Your task to perform on an android device: open app "DoorDash - Food Delivery" (install if not already installed), go to login, and select forgot password Image 0: 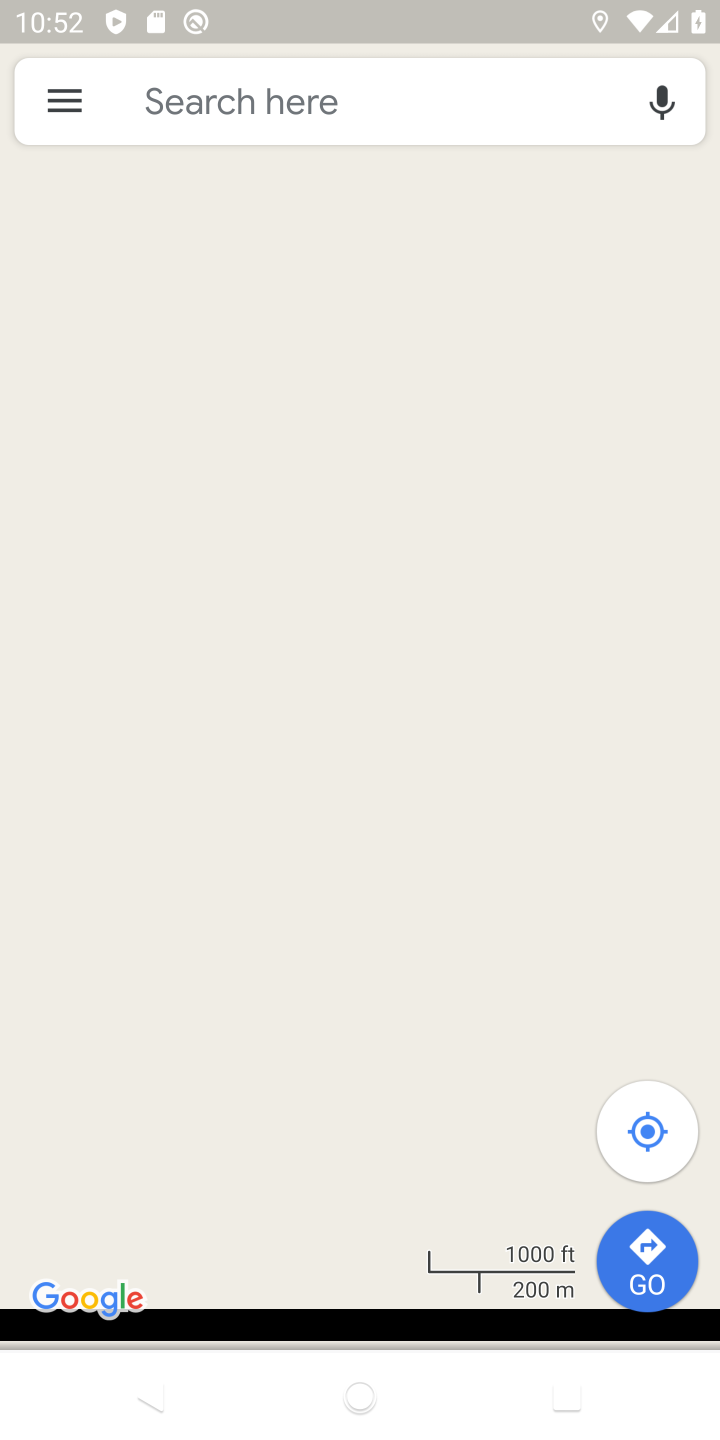
Step 0: press home button
Your task to perform on an android device: open app "DoorDash - Food Delivery" (install if not already installed), go to login, and select forgot password Image 1: 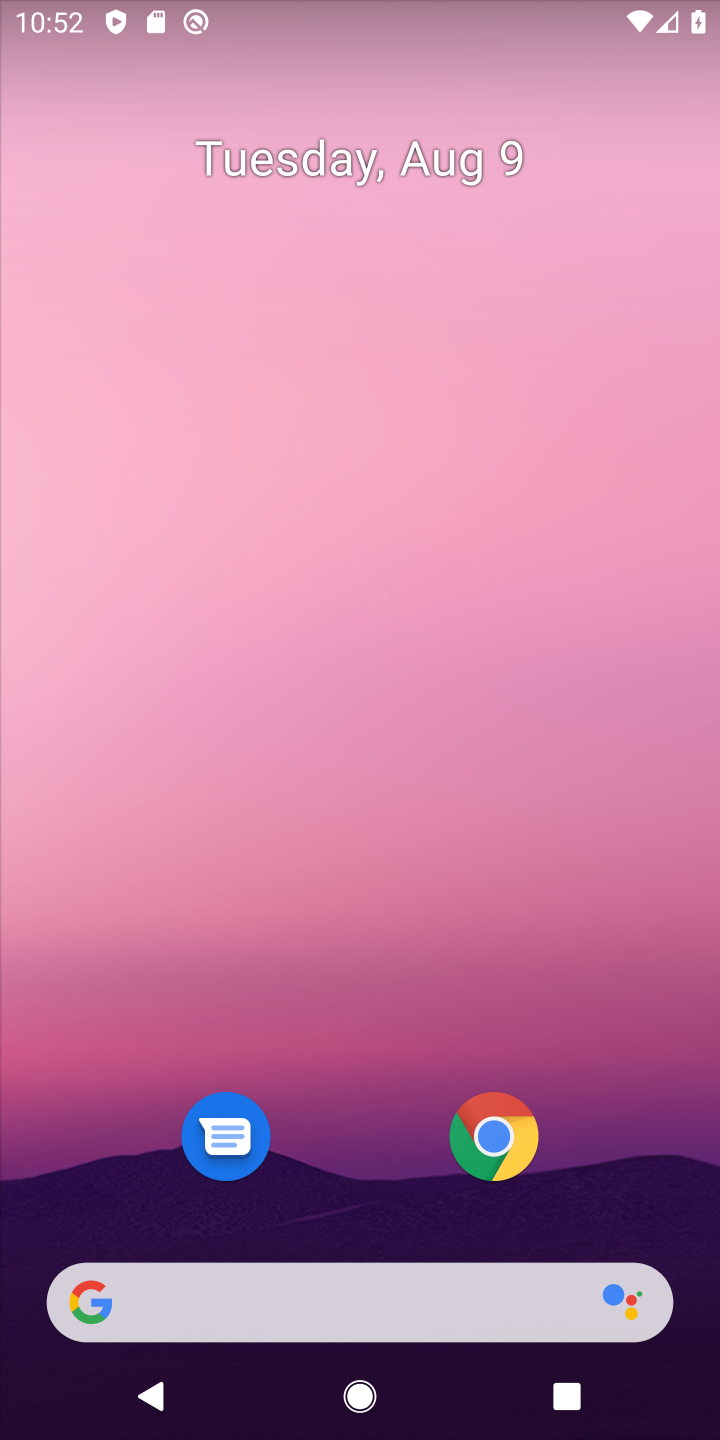
Step 1: drag from (387, 963) to (462, 389)
Your task to perform on an android device: open app "DoorDash - Food Delivery" (install if not already installed), go to login, and select forgot password Image 2: 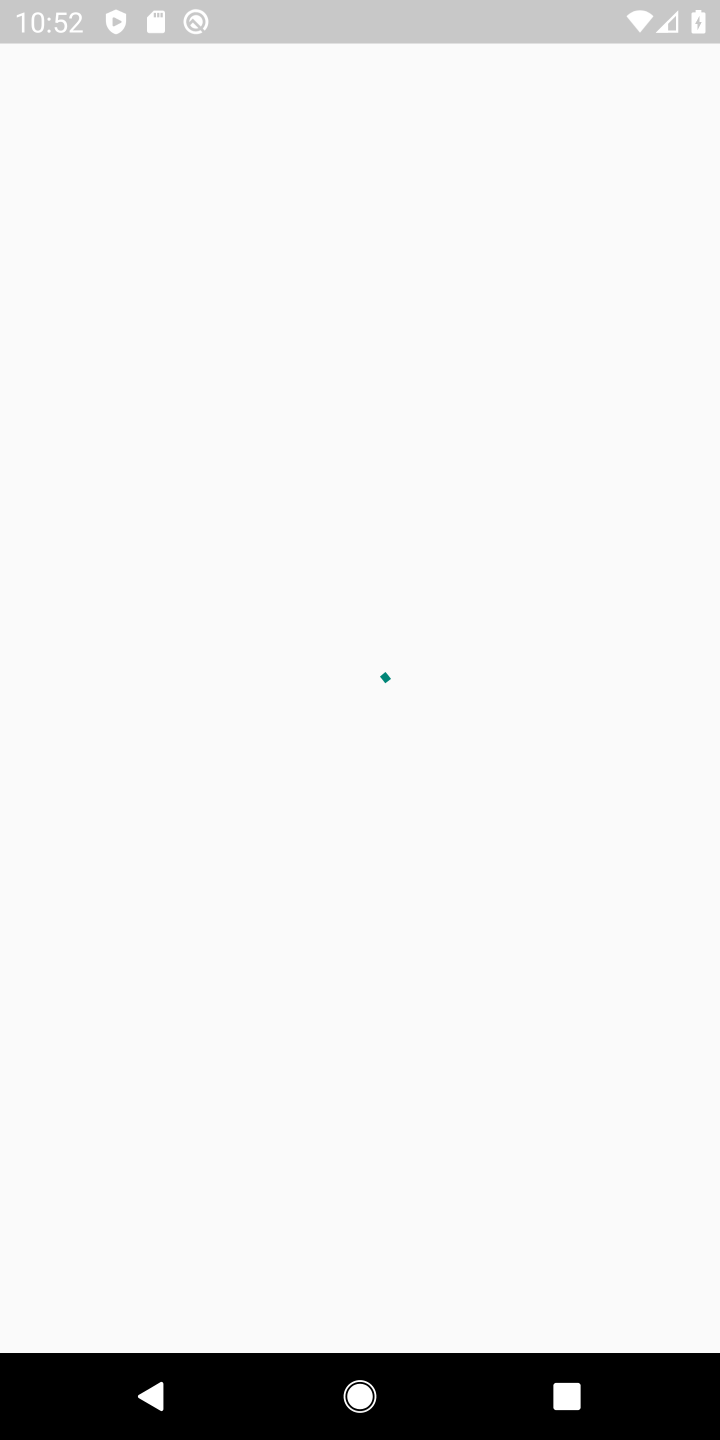
Step 2: press home button
Your task to perform on an android device: open app "DoorDash - Food Delivery" (install if not already installed), go to login, and select forgot password Image 3: 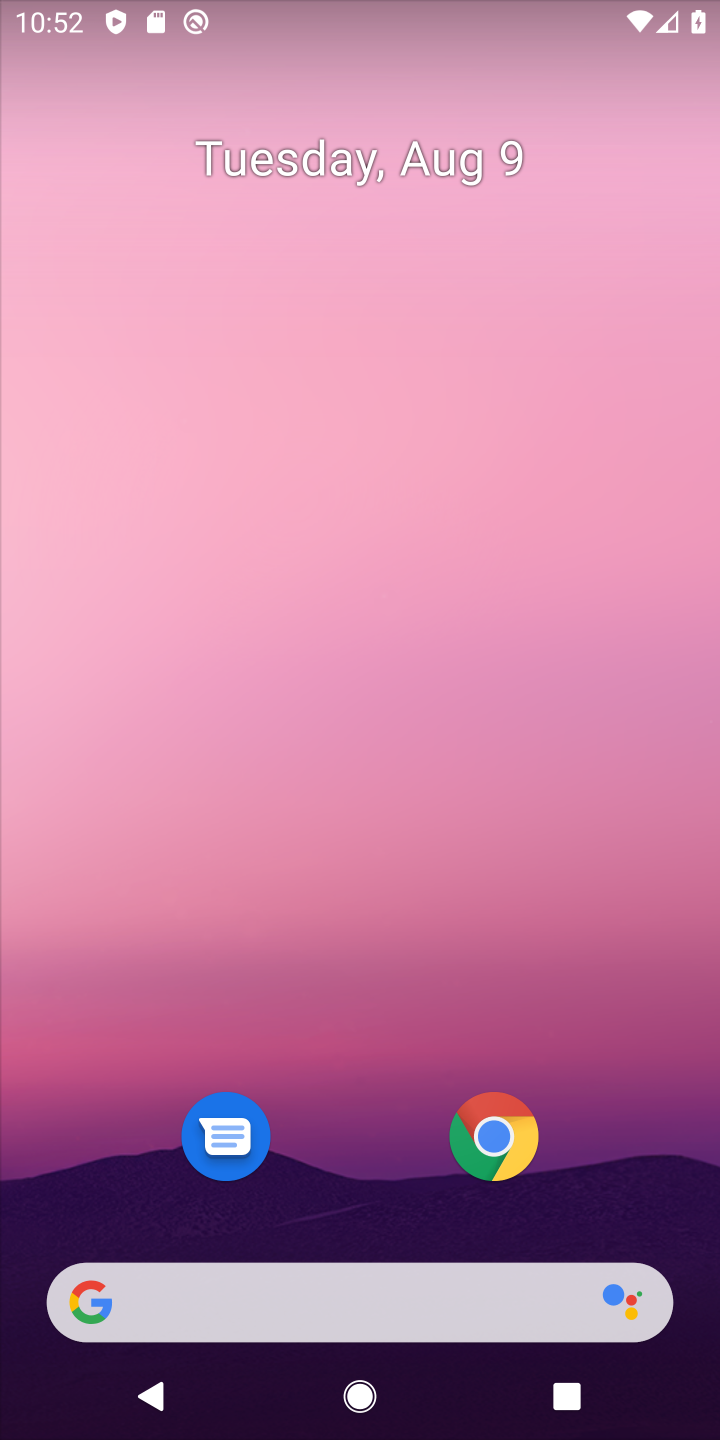
Step 3: drag from (358, 1185) to (454, 69)
Your task to perform on an android device: open app "DoorDash - Food Delivery" (install if not already installed), go to login, and select forgot password Image 4: 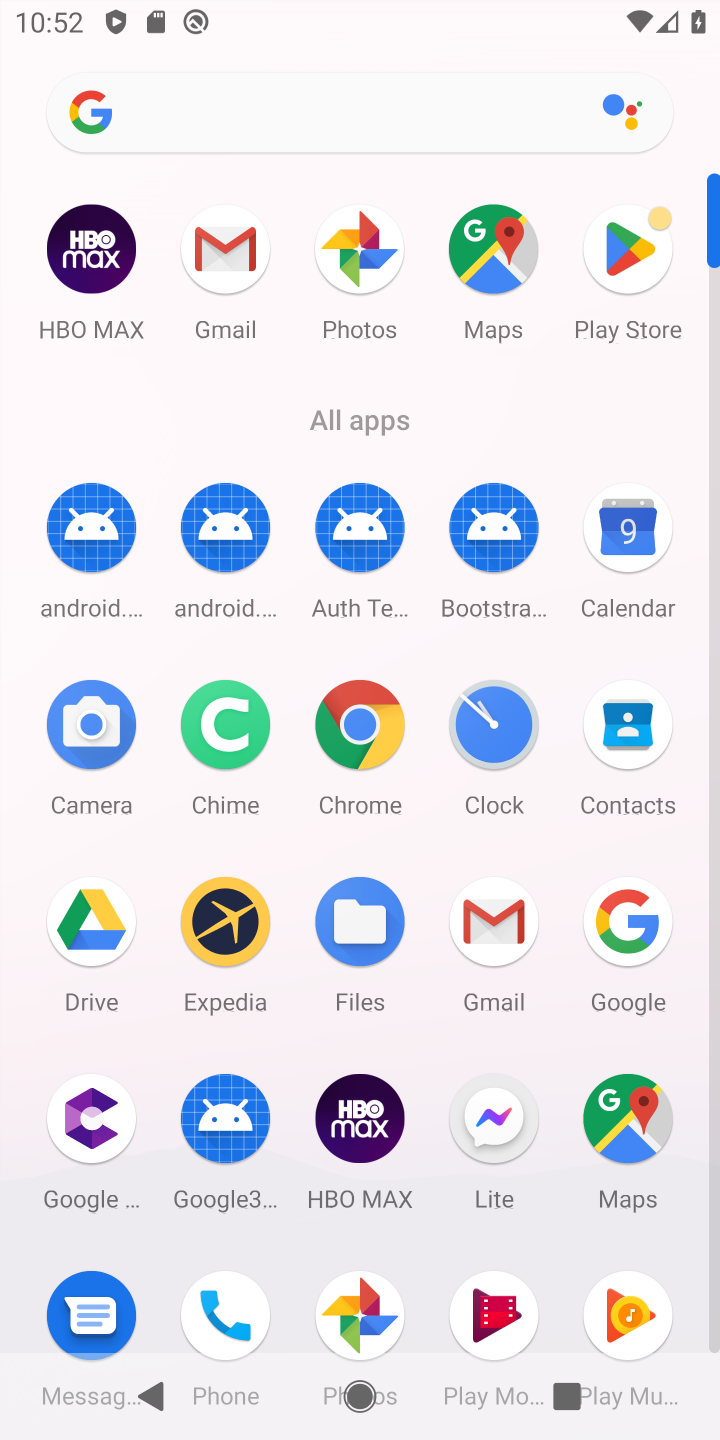
Step 4: click (636, 285)
Your task to perform on an android device: open app "DoorDash - Food Delivery" (install if not already installed), go to login, and select forgot password Image 5: 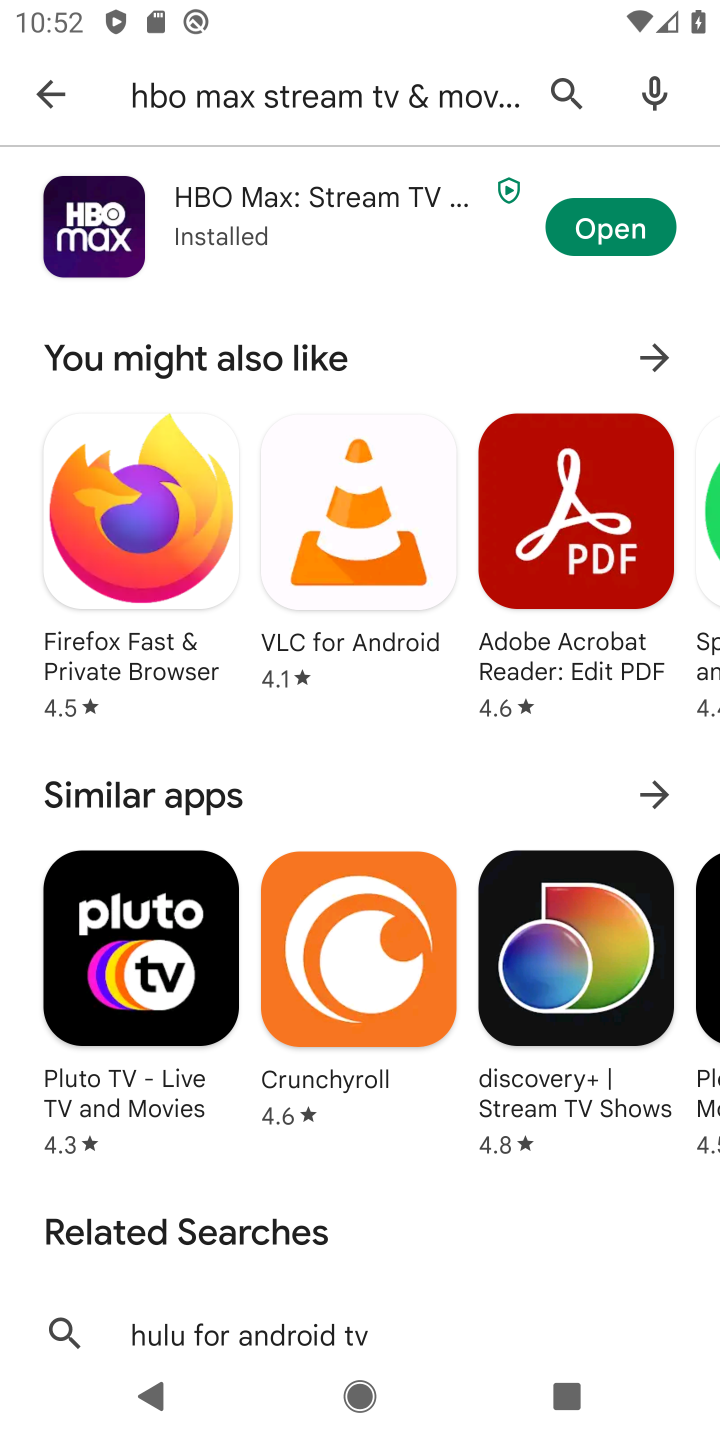
Step 5: click (307, 96)
Your task to perform on an android device: open app "DoorDash - Food Delivery" (install if not already installed), go to login, and select forgot password Image 6: 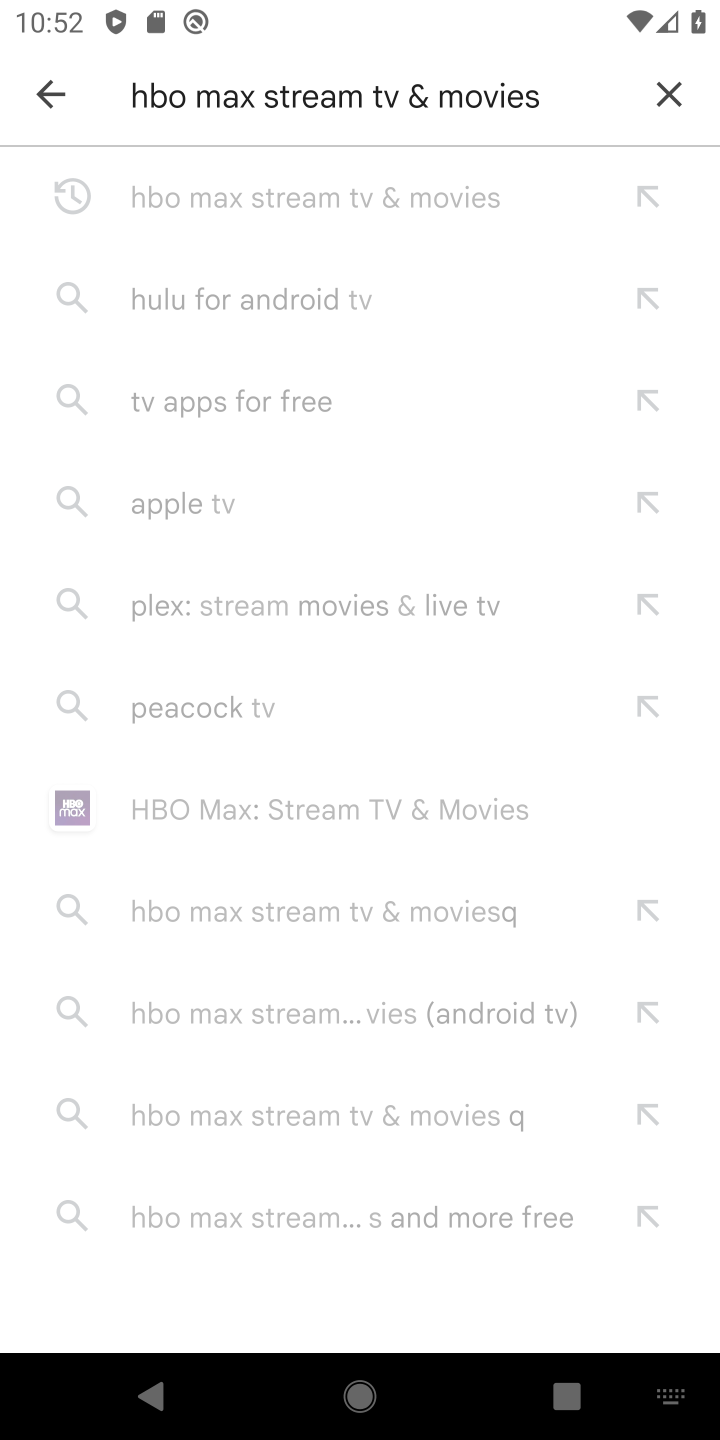
Step 6: click (671, 101)
Your task to perform on an android device: open app "DoorDash - Food Delivery" (install if not already installed), go to login, and select forgot password Image 7: 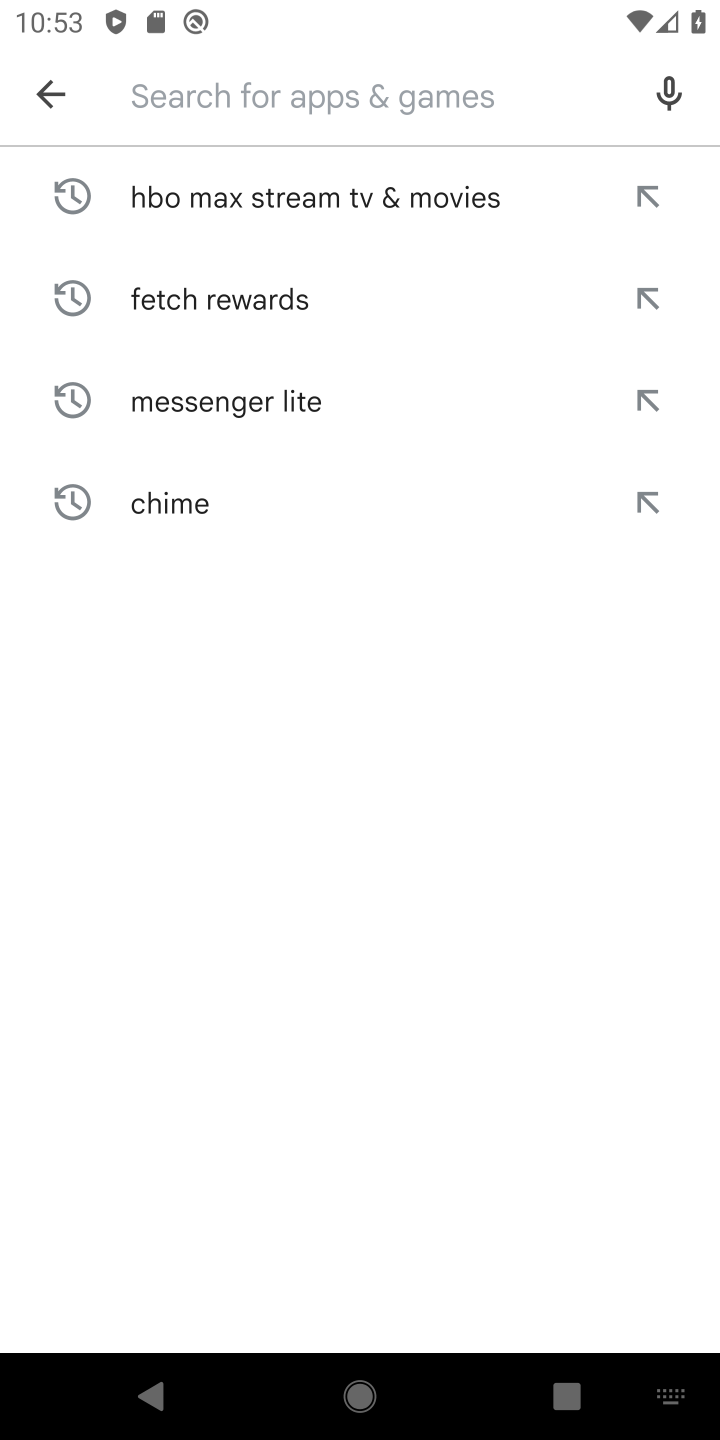
Step 7: type "DoorDash- Food Delivery"
Your task to perform on an android device: open app "DoorDash - Food Delivery" (install if not already installed), go to login, and select forgot password Image 8: 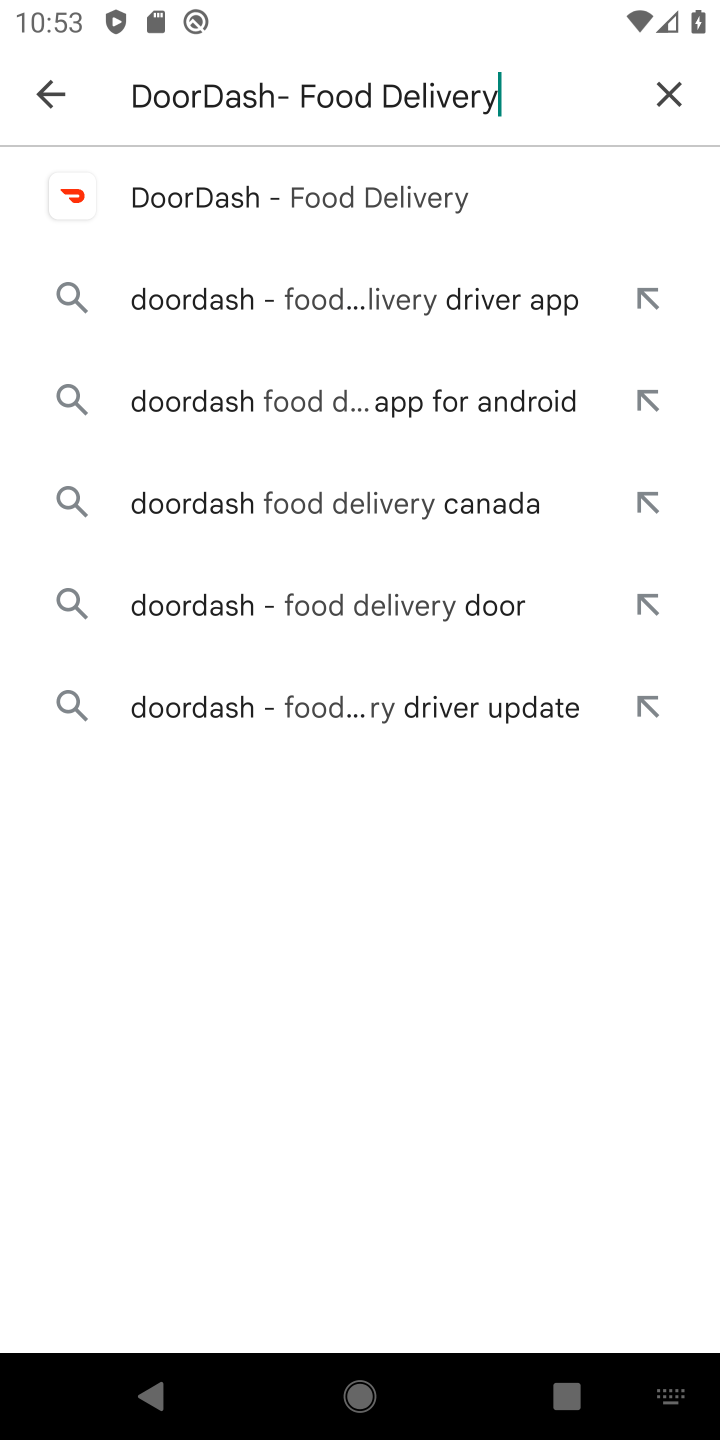
Step 8: click (331, 198)
Your task to perform on an android device: open app "DoorDash - Food Delivery" (install if not already installed), go to login, and select forgot password Image 9: 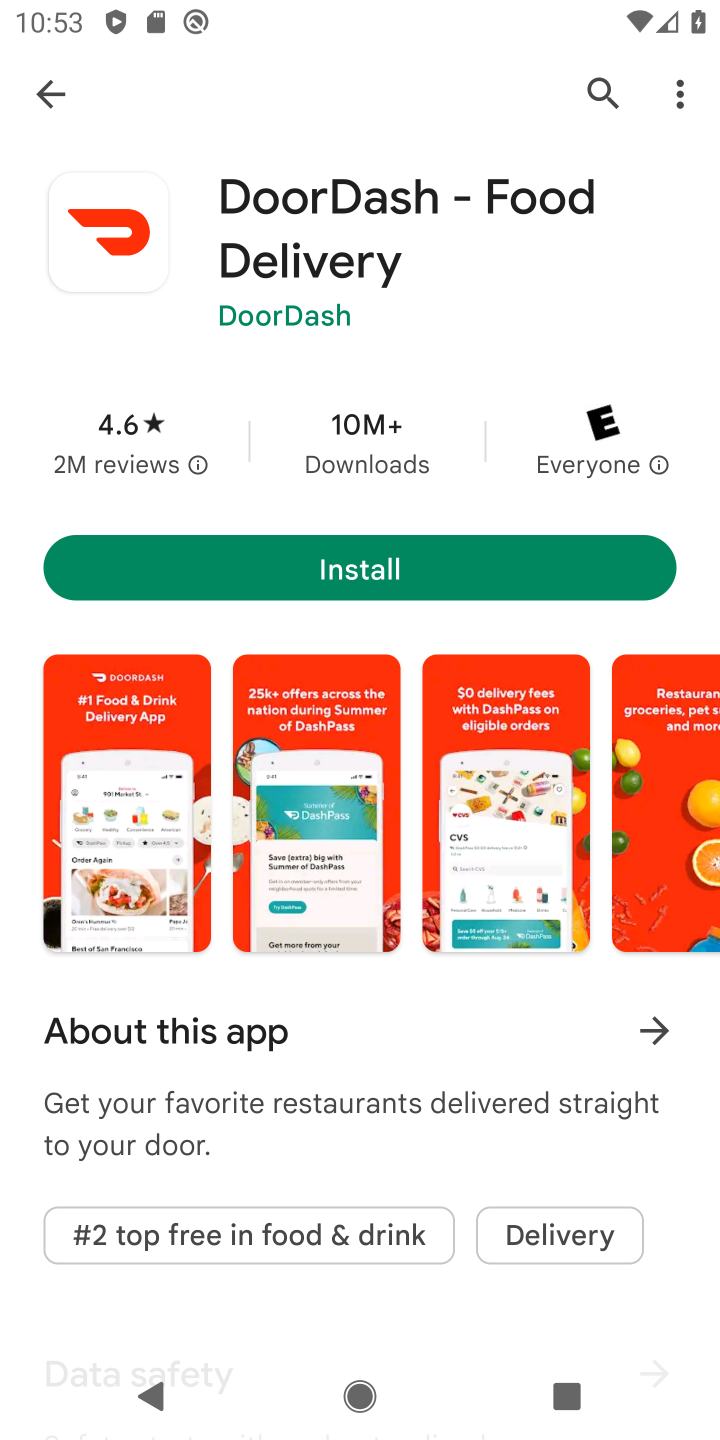
Step 9: click (364, 547)
Your task to perform on an android device: open app "DoorDash - Food Delivery" (install if not already installed), go to login, and select forgot password Image 10: 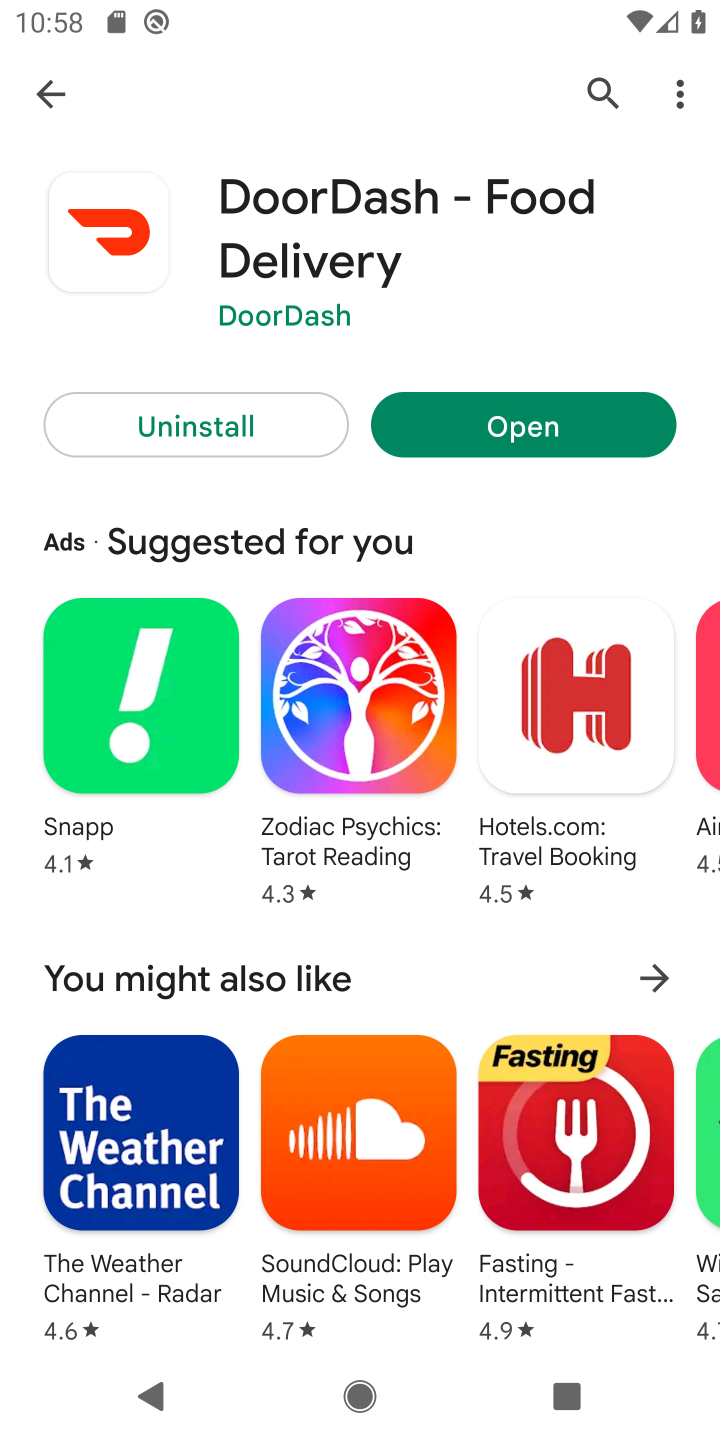
Step 10: click (544, 412)
Your task to perform on an android device: open app "DoorDash - Food Delivery" (install if not already installed), go to login, and select forgot password Image 11: 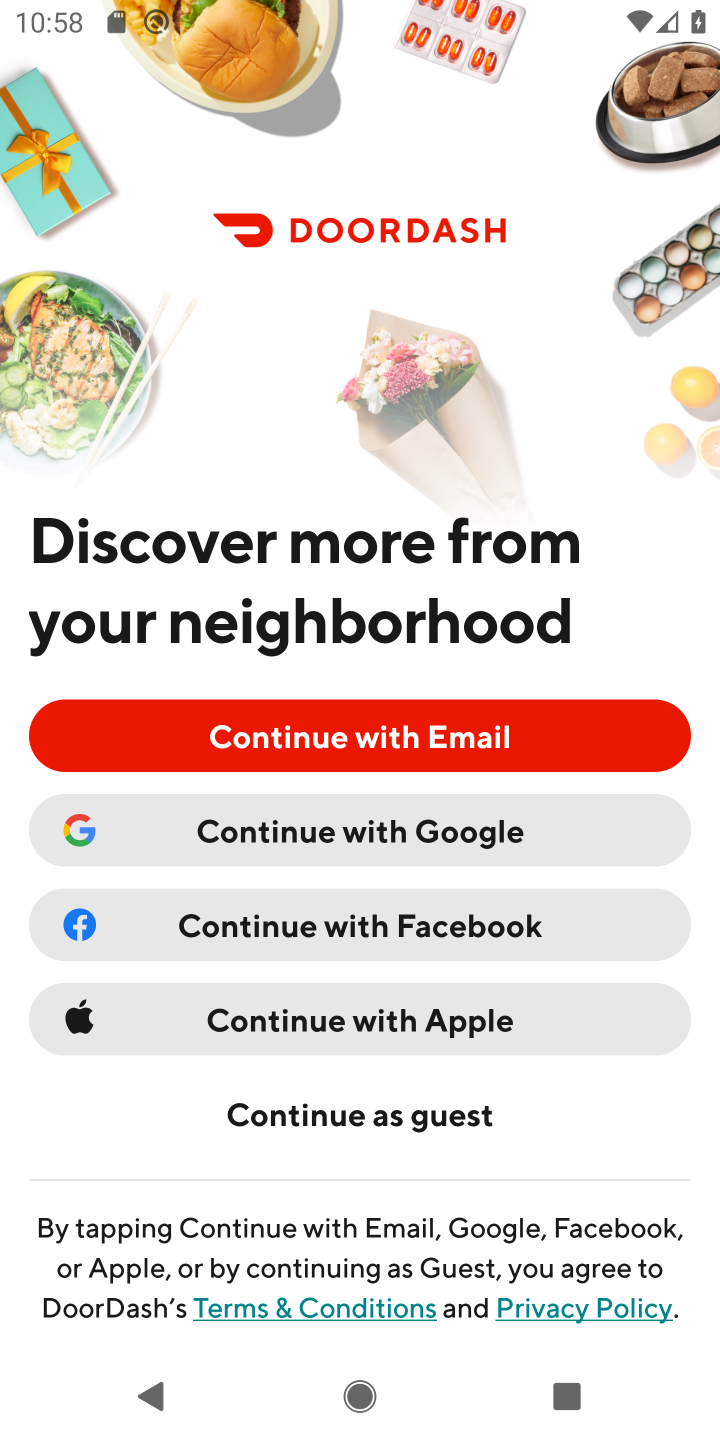
Step 11: click (458, 835)
Your task to perform on an android device: open app "DoorDash - Food Delivery" (install if not already installed), go to login, and select forgot password Image 12: 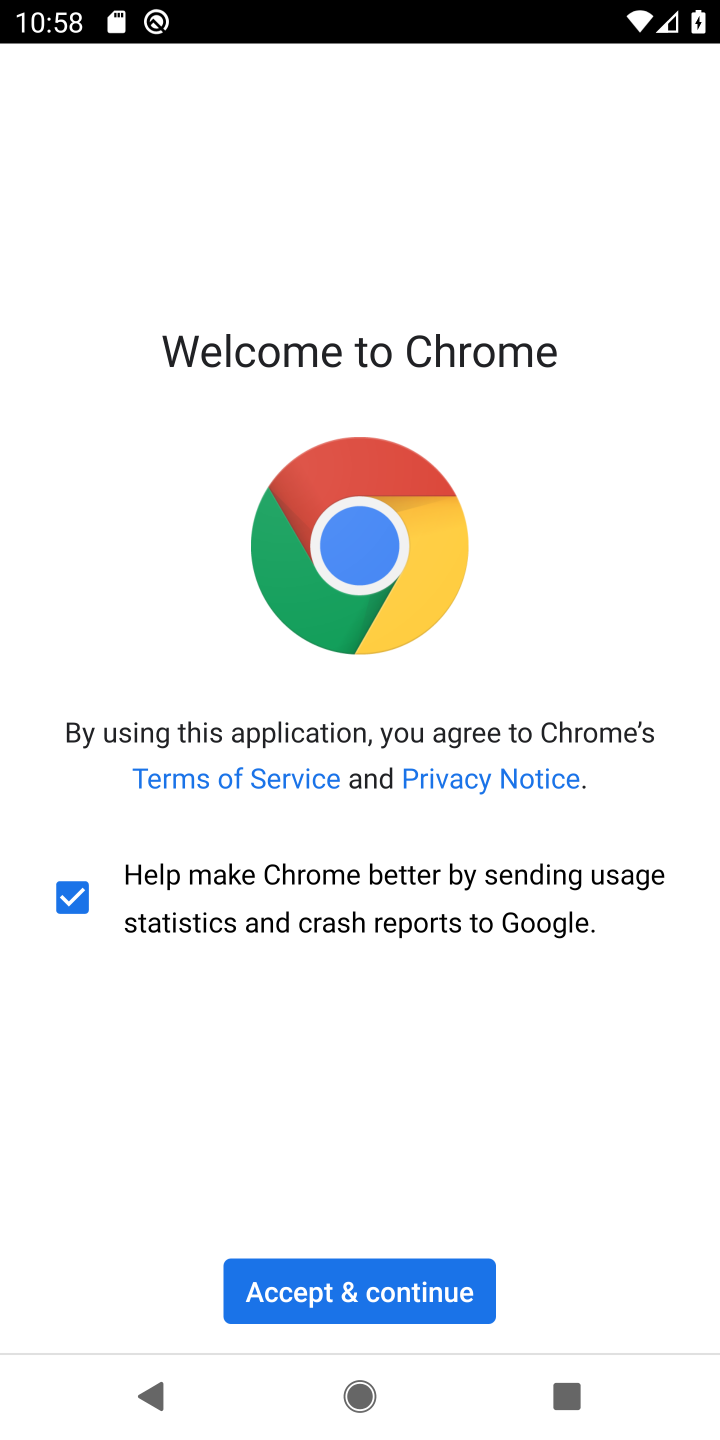
Step 12: click (402, 1289)
Your task to perform on an android device: open app "DoorDash - Food Delivery" (install if not already installed), go to login, and select forgot password Image 13: 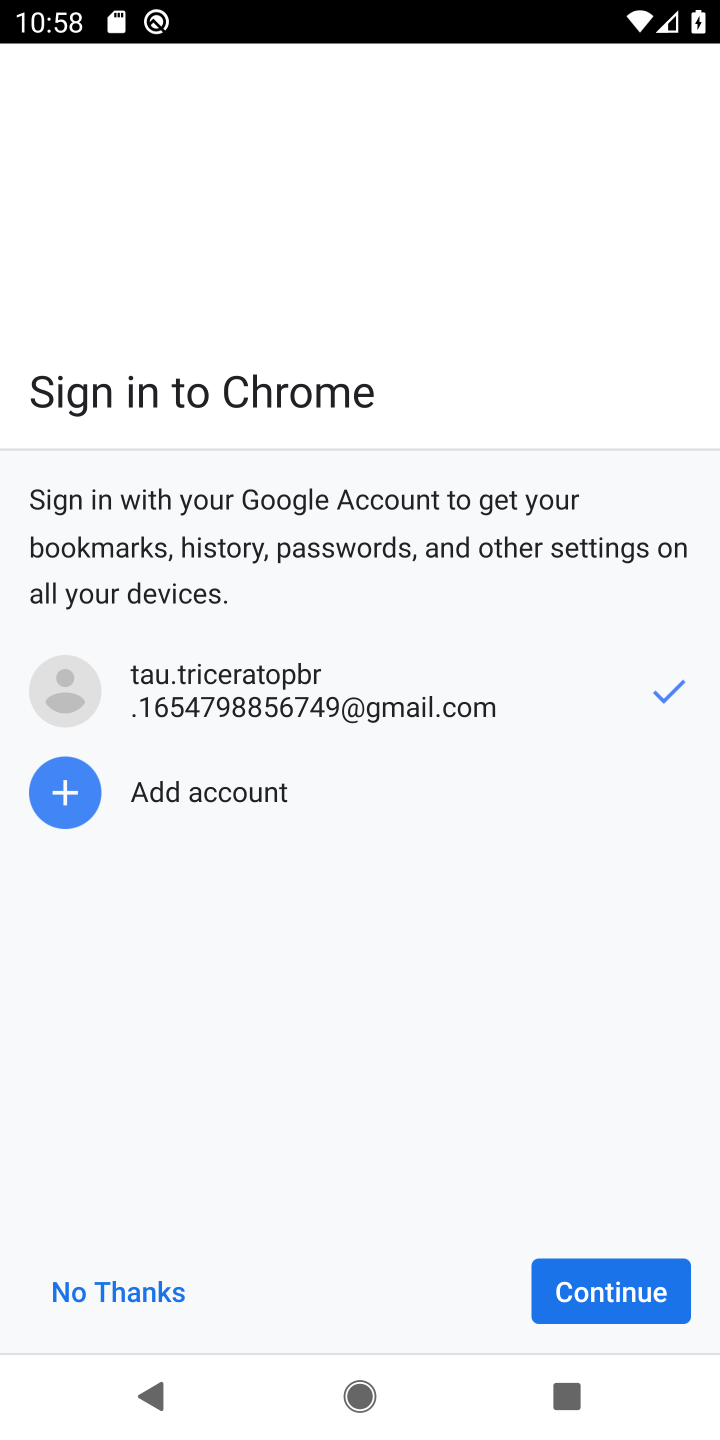
Step 13: click (680, 1296)
Your task to perform on an android device: open app "DoorDash - Food Delivery" (install if not already installed), go to login, and select forgot password Image 14: 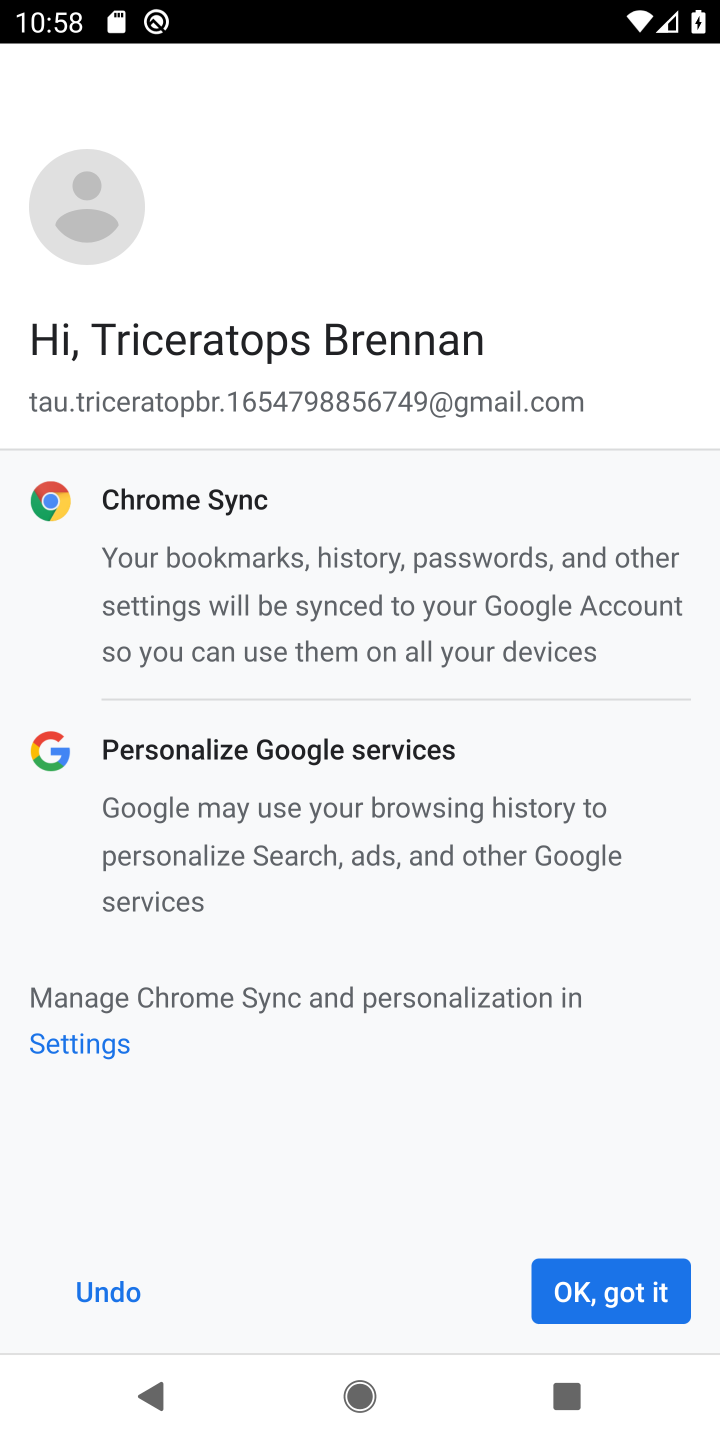
Step 14: click (634, 1273)
Your task to perform on an android device: open app "DoorDash - Food Delivery" (install if not already installed), go to login, and select forgot password Image 15: 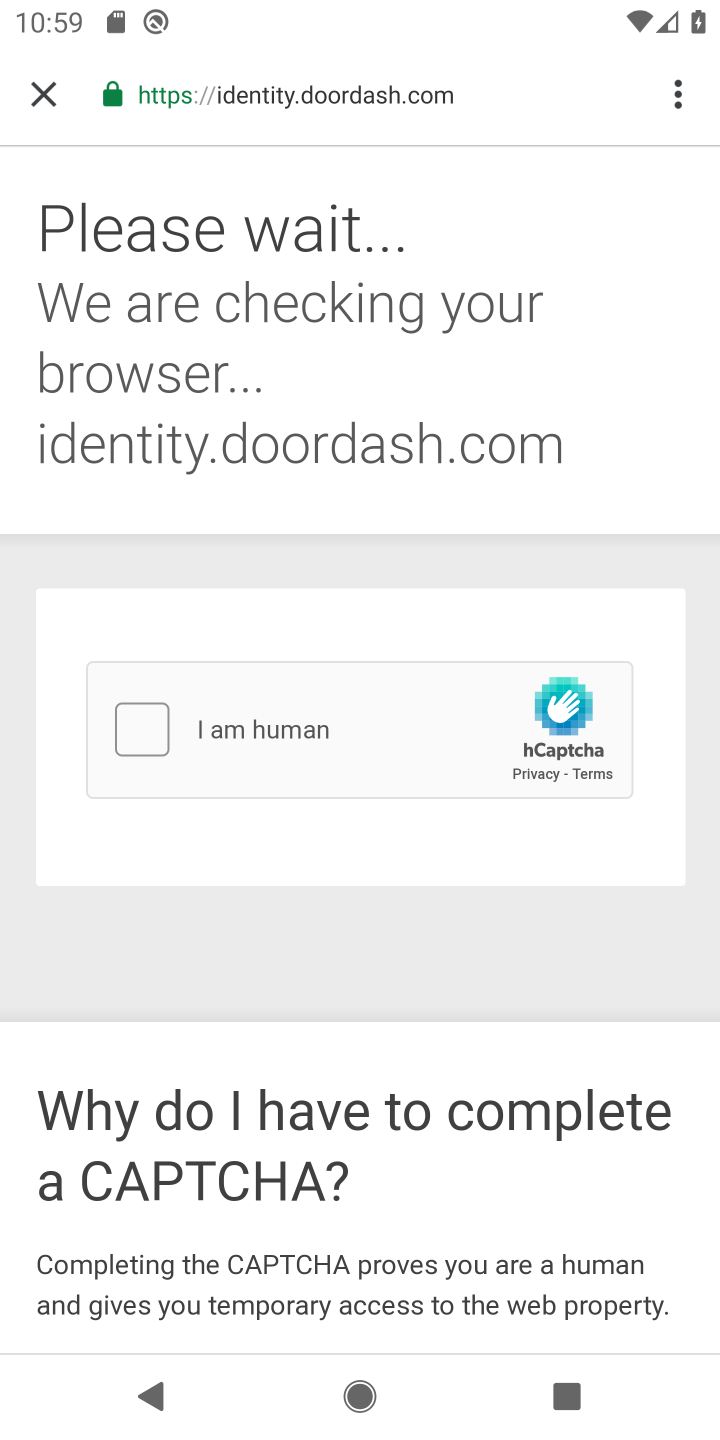
Step 15: click (192, 737)
Your task to perform on an android device: open app "DoorDash - Food Delivery" (install if not already installed), go to login, and select forgot password Image 16: 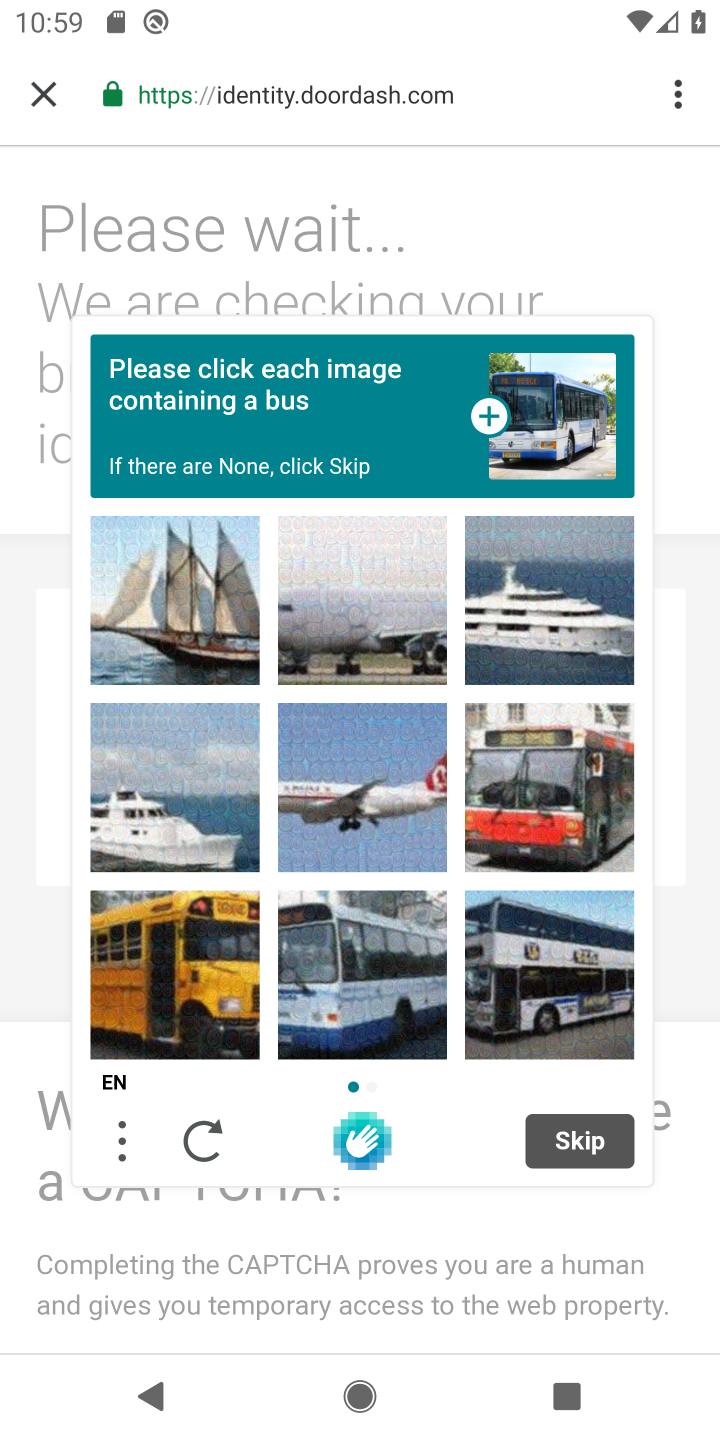
Step 16: click (164, 729)
Your task to perform on an android device: open app "DoorDash - Food Delivery" (install if not already installed), go to login, and select forgot password Image 17: 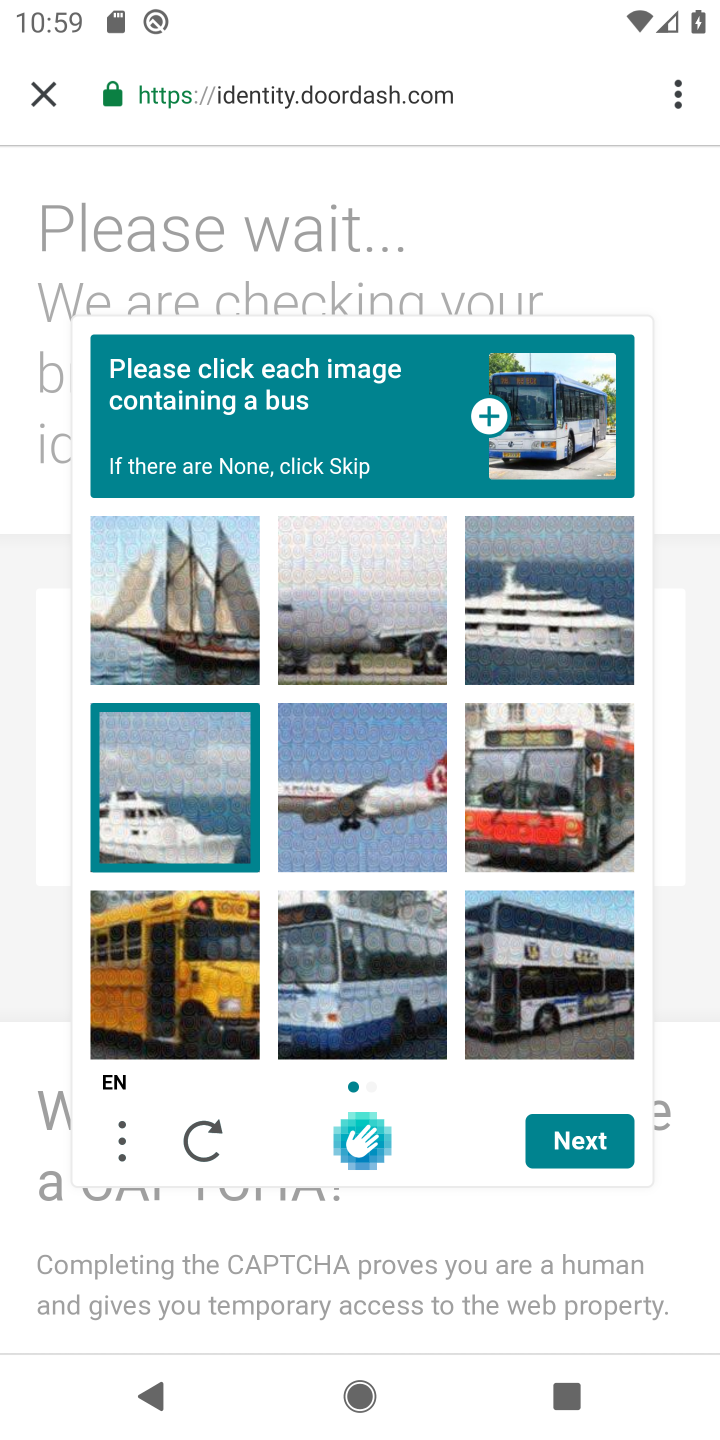
Step 17: click (161, 731)
Your task to perform on an android device: open app "DoorDash - Food Delivery" (install if not already installed), go to login, and select forgot password Image 18: 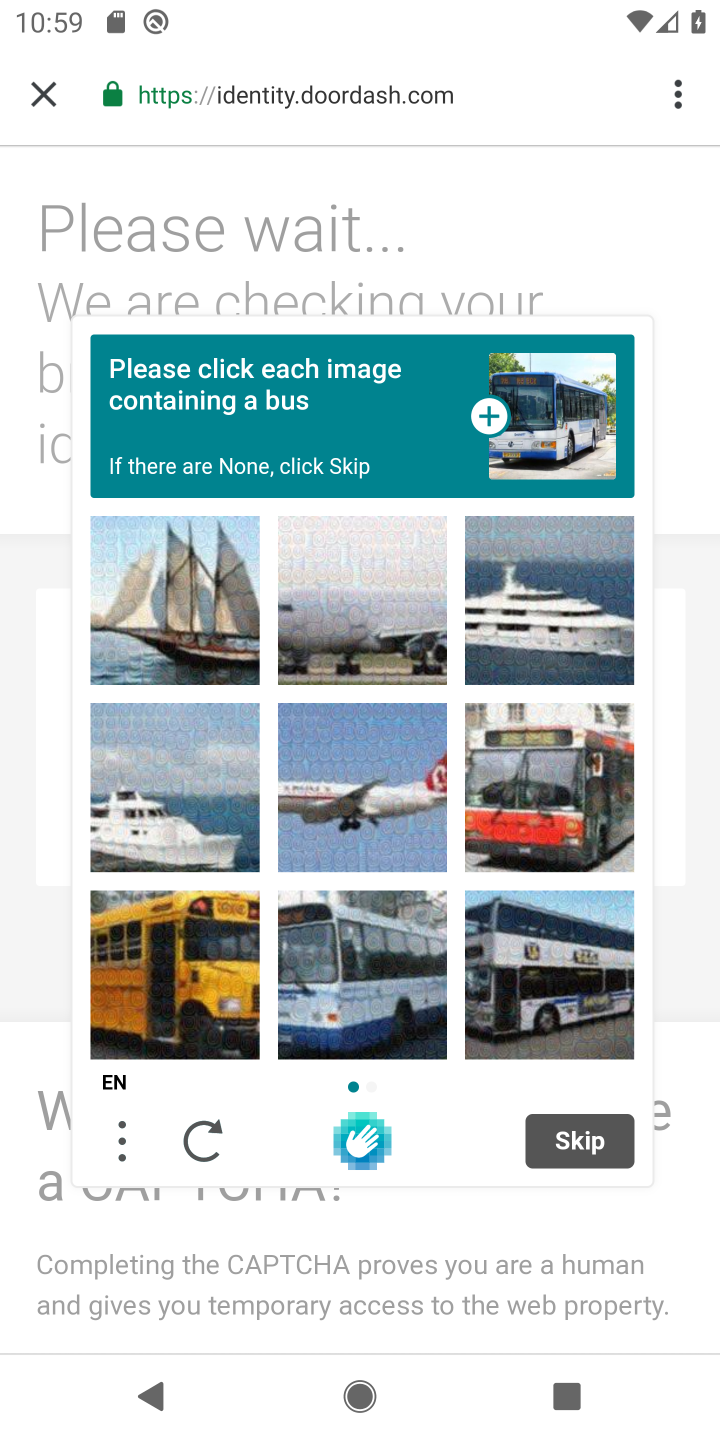
Step 18: click (597, 773)
Your task to perform on an android device: open app "DoorDash - Food Delivery" (install if not already installed), go to login, and select forgot password Image 19: 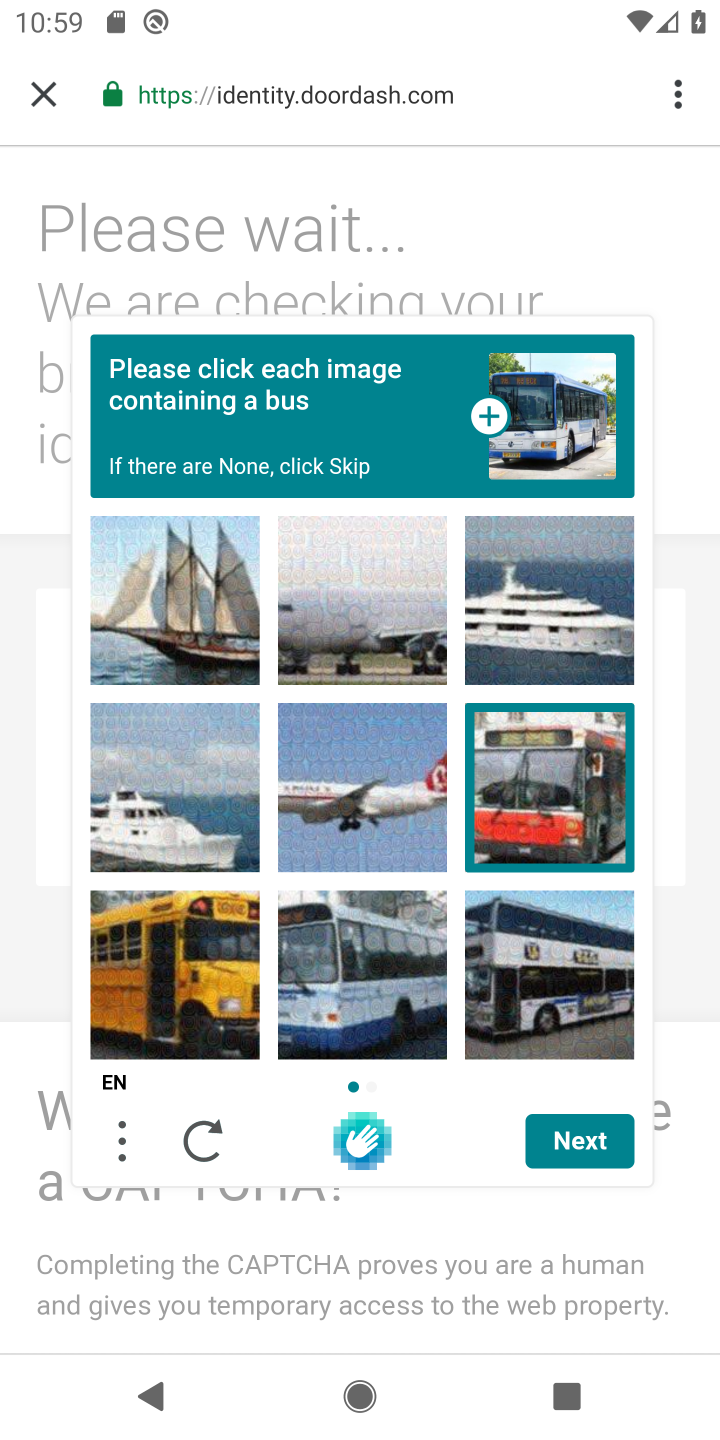
Step 19: click (579, 982)
Your task to perform on an android device: open app "DoorDash - Food Delivery" (install if not already installed), go to login, and select forgot password Image 20: 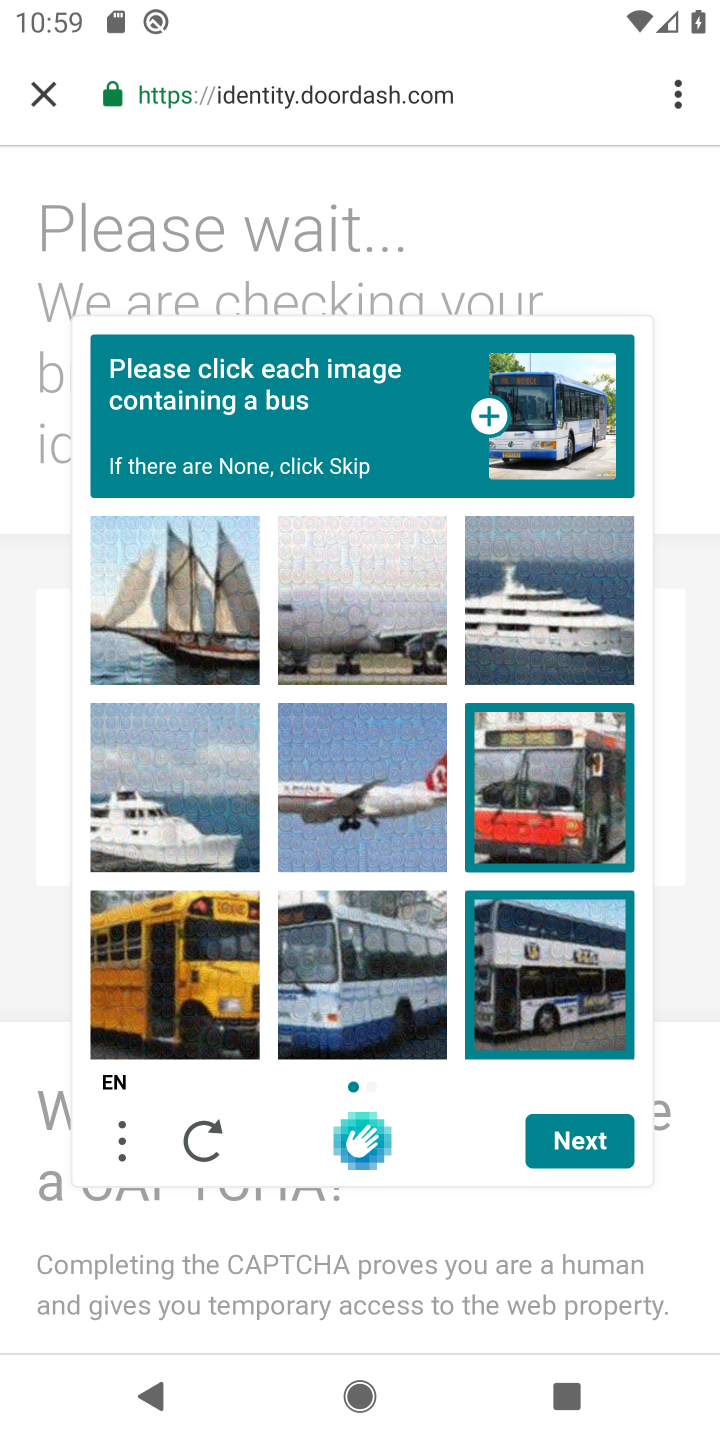
Step 20: click (337, 972)
Your task to perform on an android device: open app "DoorDash - Food Delivery" (install if not already installed), go to login, and select forgot password Image 21: 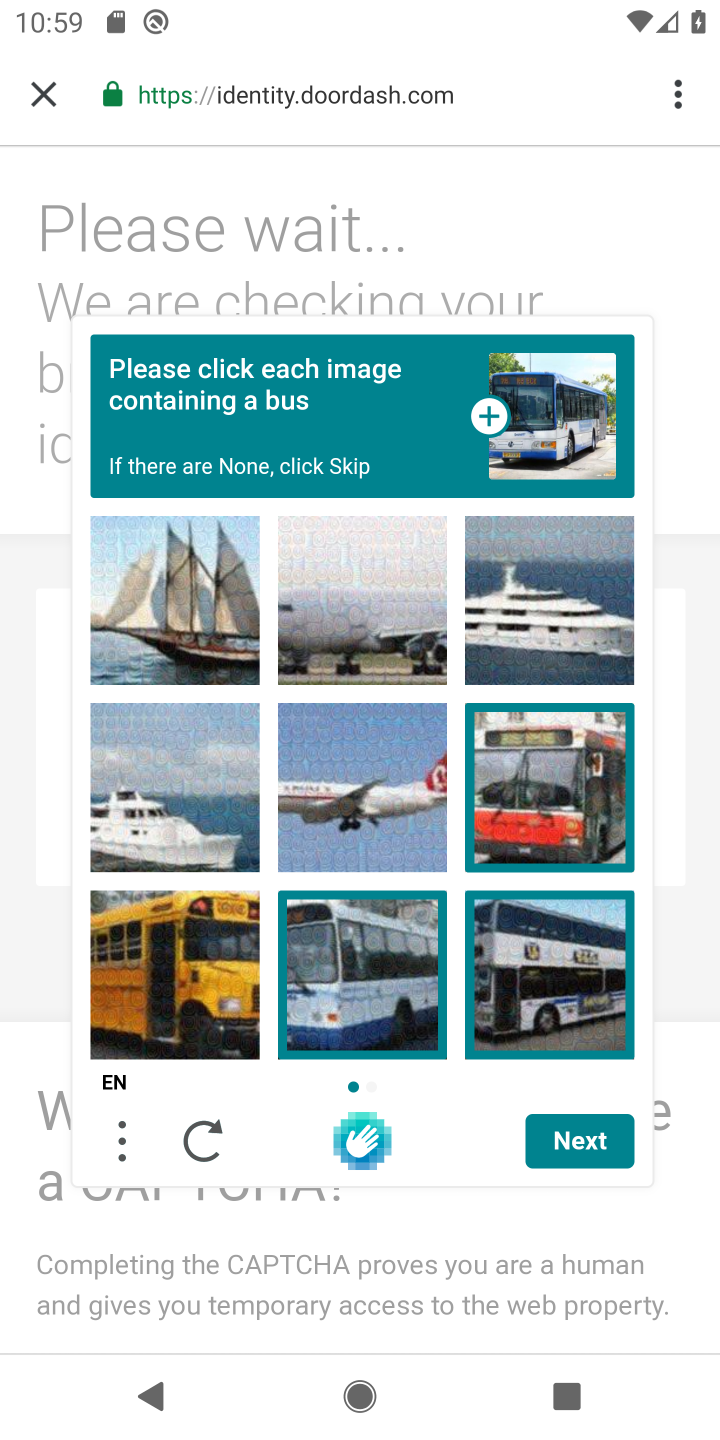
Step 21: click (149, 976)
Your task to perform on an android device: open app "DoorDash - Food Delivery" (install if not already installed), go to login, and select forgot password Image 22: 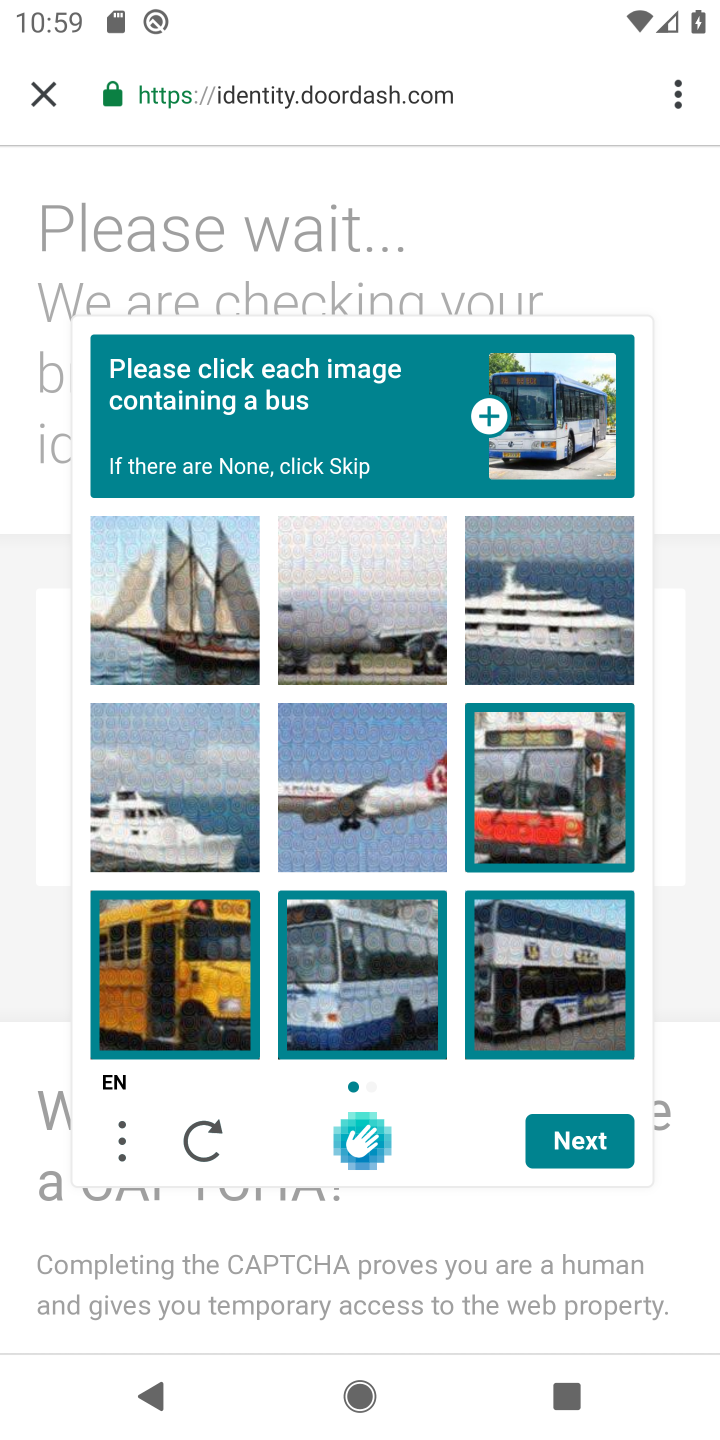
Step 22: click (596, 1144)
Your task to perform on an android device: open app "DoorDash - Food Delivery" (install if not already installed), go to login, and select forgot password Image 23: 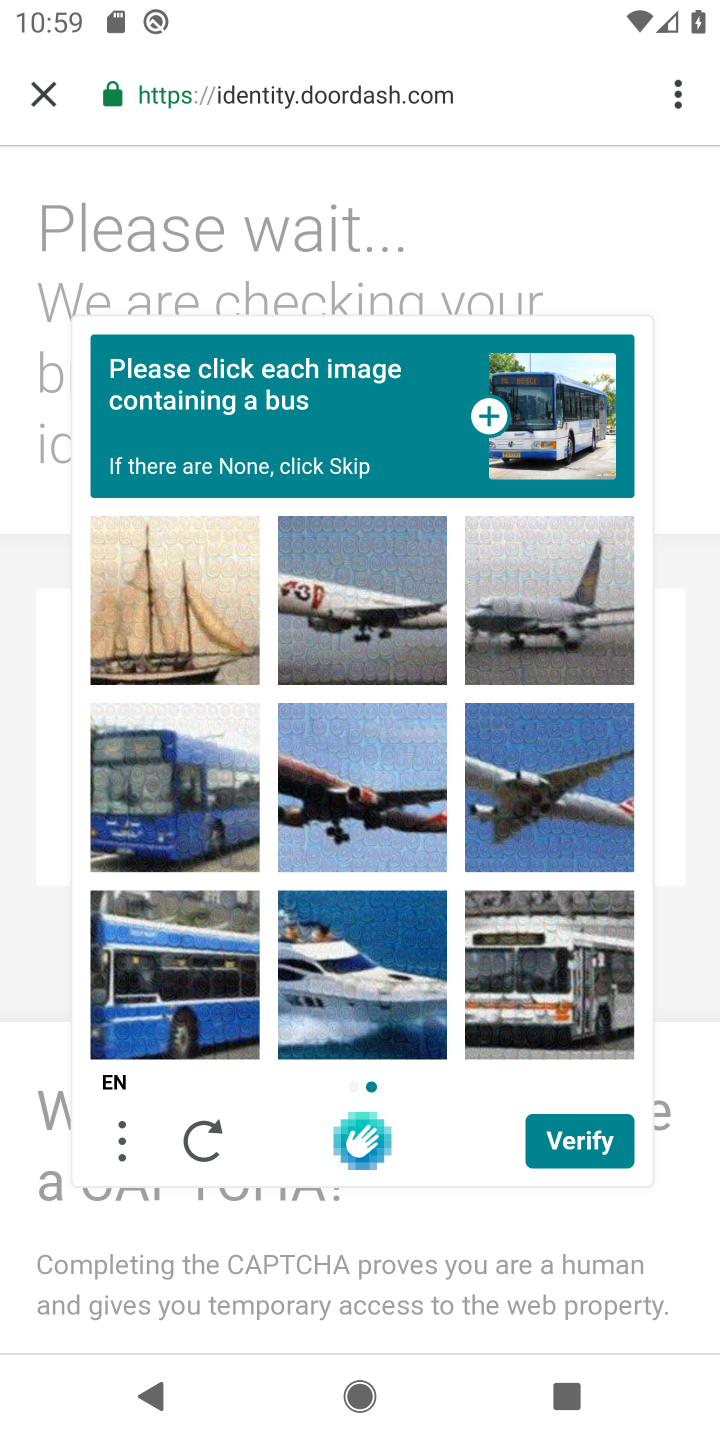
Step 23: click (591, 980)
Your task to perform on an android device: open app "DoorDash - Food Delivery" (install if not already installed), go to login, and select forgot password Image 24: 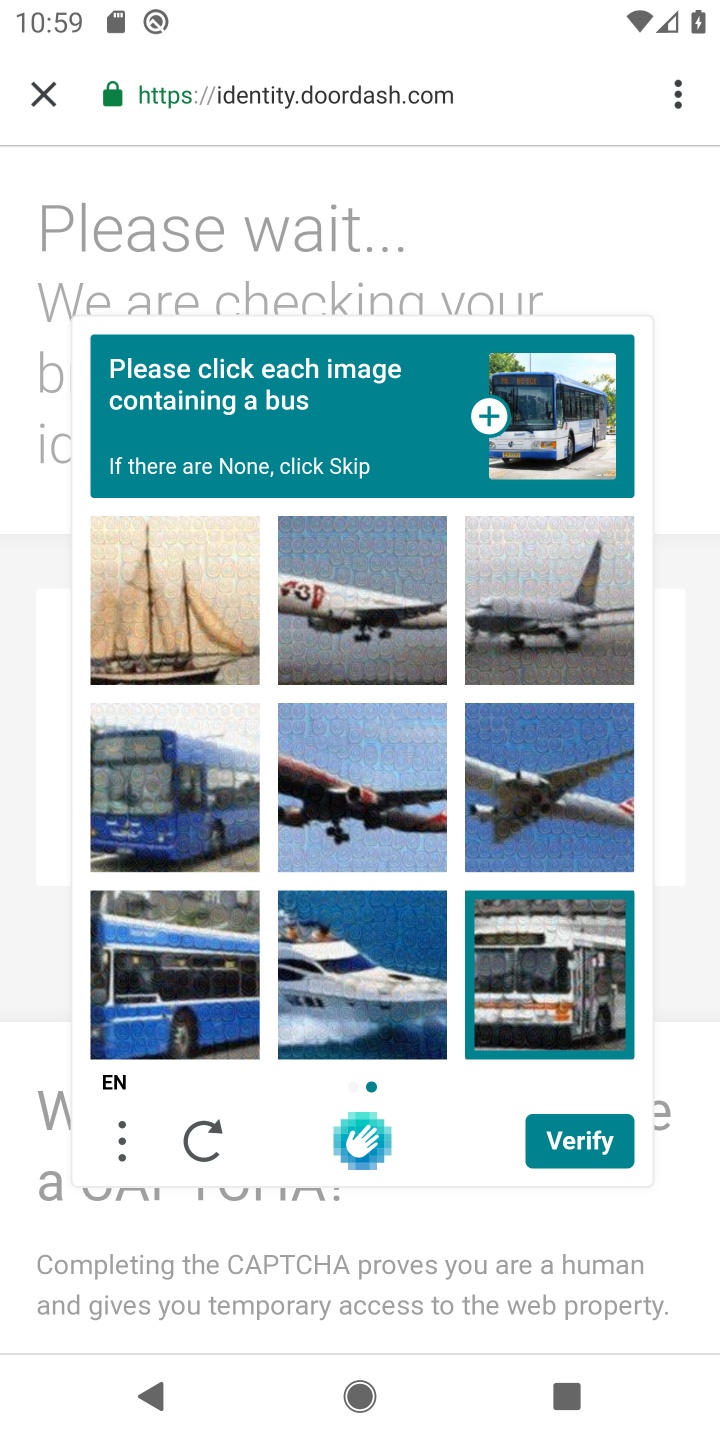
Step 24: click (155, 1014)
Your task to perform on an android device: open app "DoorDash - Food Delivery" (install if not already installed), go to login, and select forgot password Image 25: 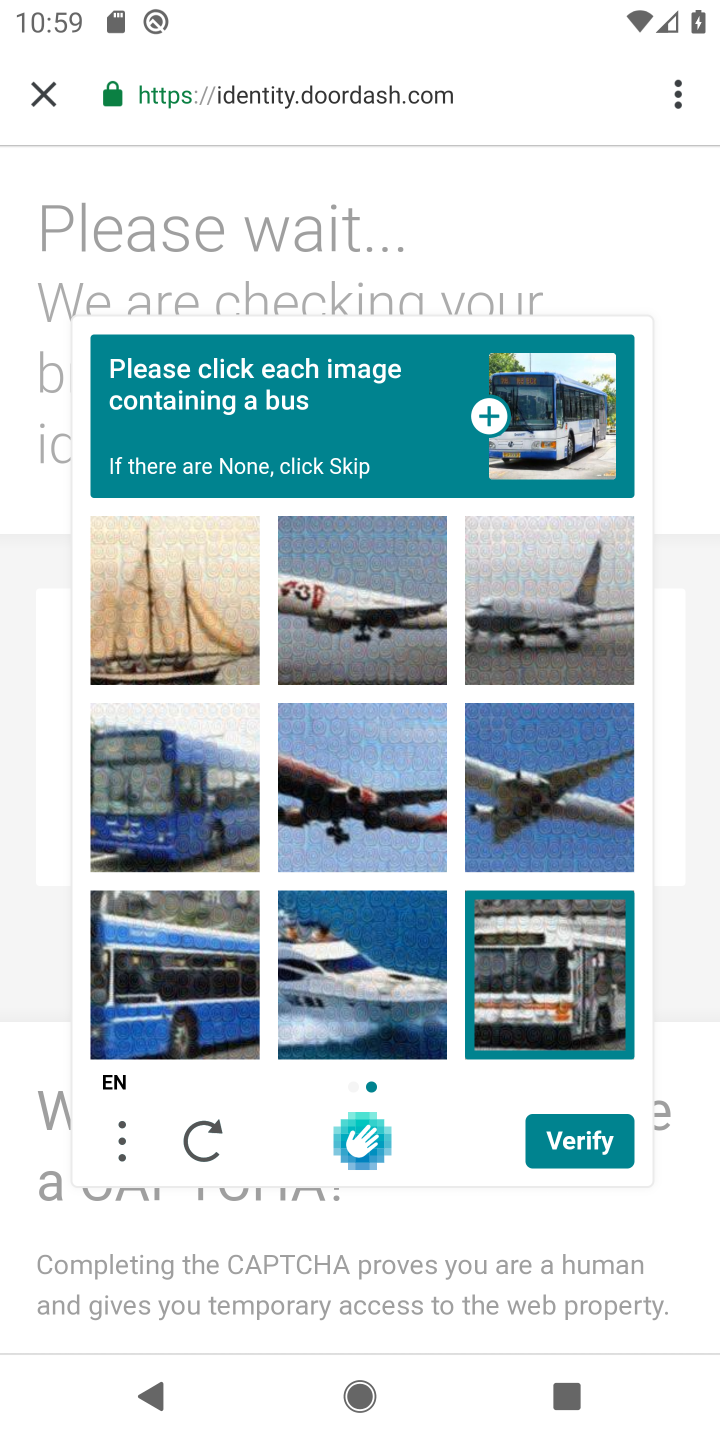
Step 25: click (145, 851)
Your task to perform on an android device: open app "DoorDash - Food Delivery" (install if not already installed), go to login, and select forgot password Image 26: 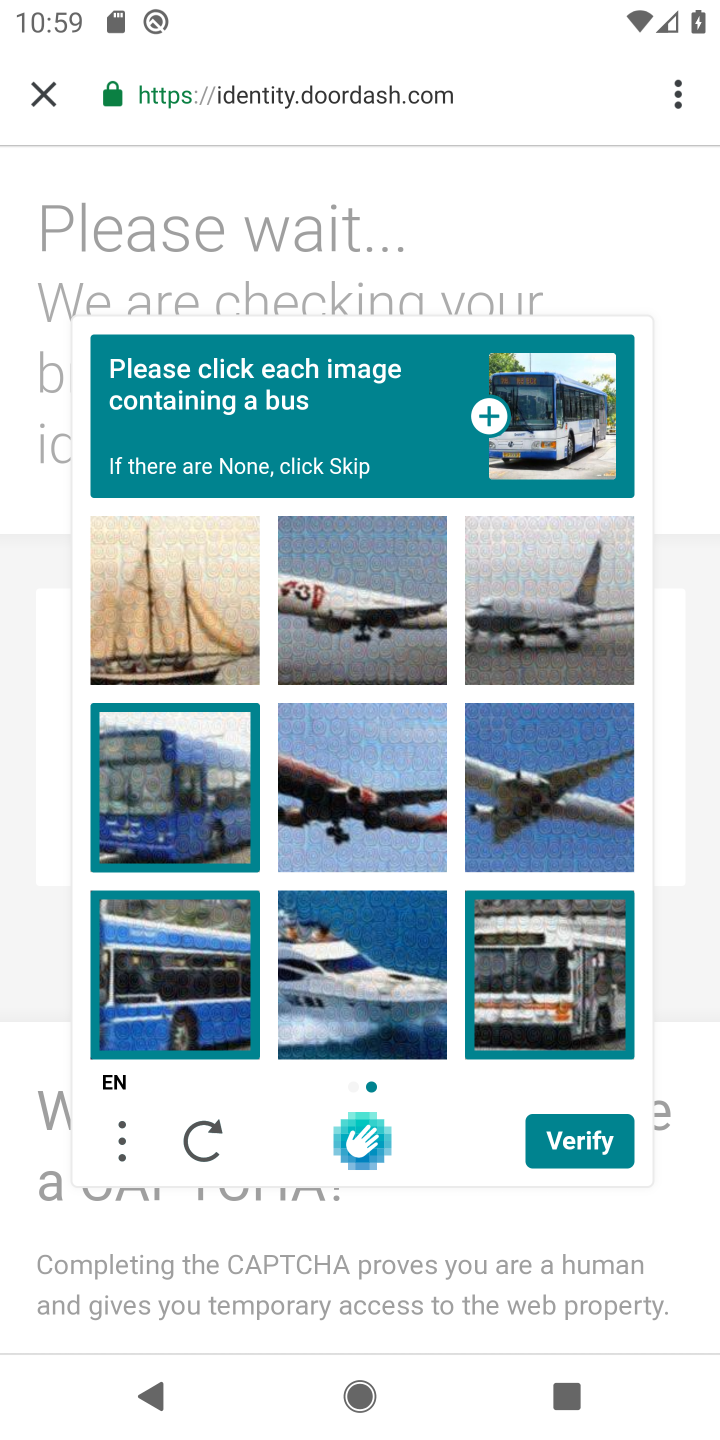
Step 26: click (572, 1135)
Your task to perform on an android device: open app "DoorDash - Food Delivery" (install if not already installed), go to login, and select forgot password Image 27: 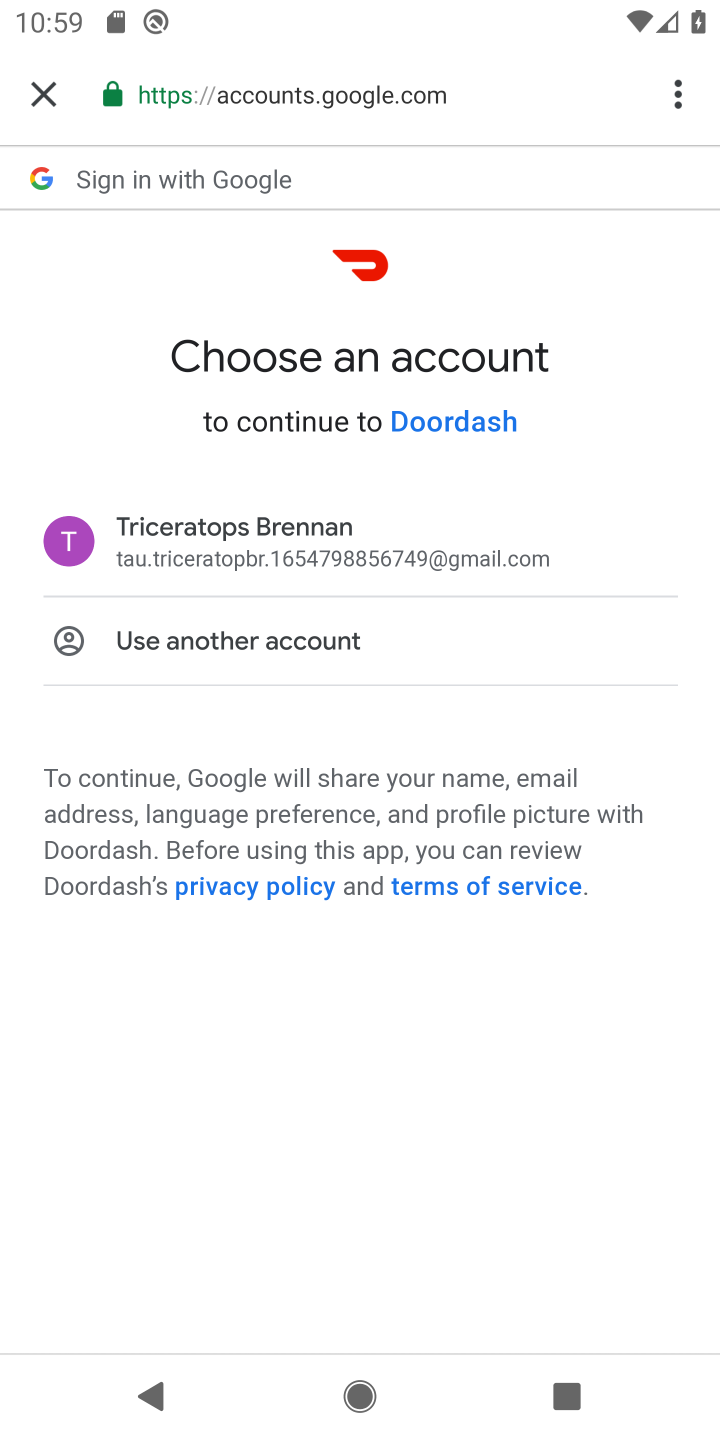
Step 27: click (454, 553)
Your task to perform on an android device: open app "DoorDash - Food Delivery" (install if not already installed), go to login, and select forgot password Image 28: 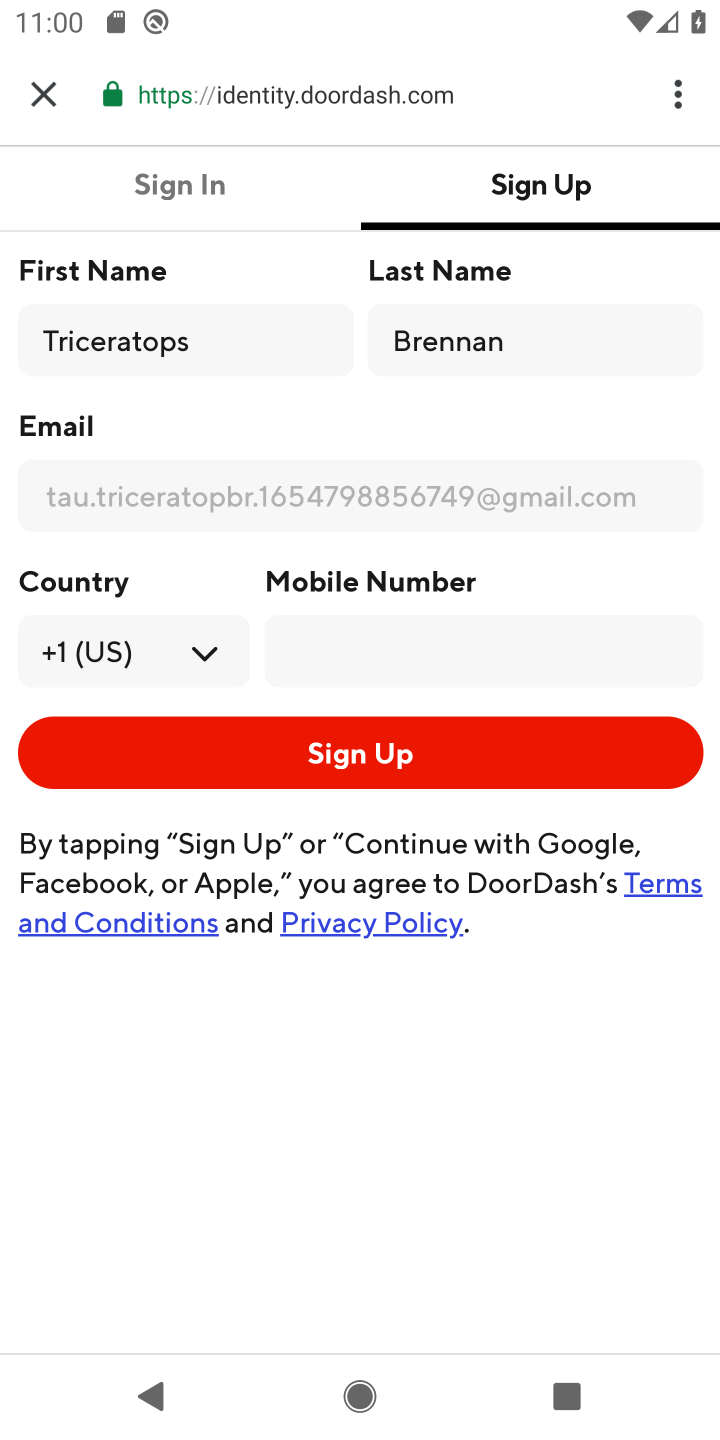
Step 28: click (183, 187)
Your task to perform on an android device: open app "DoorDash - Food Delivery" (install if not already installed), go to login, and select forgot password Image 29: 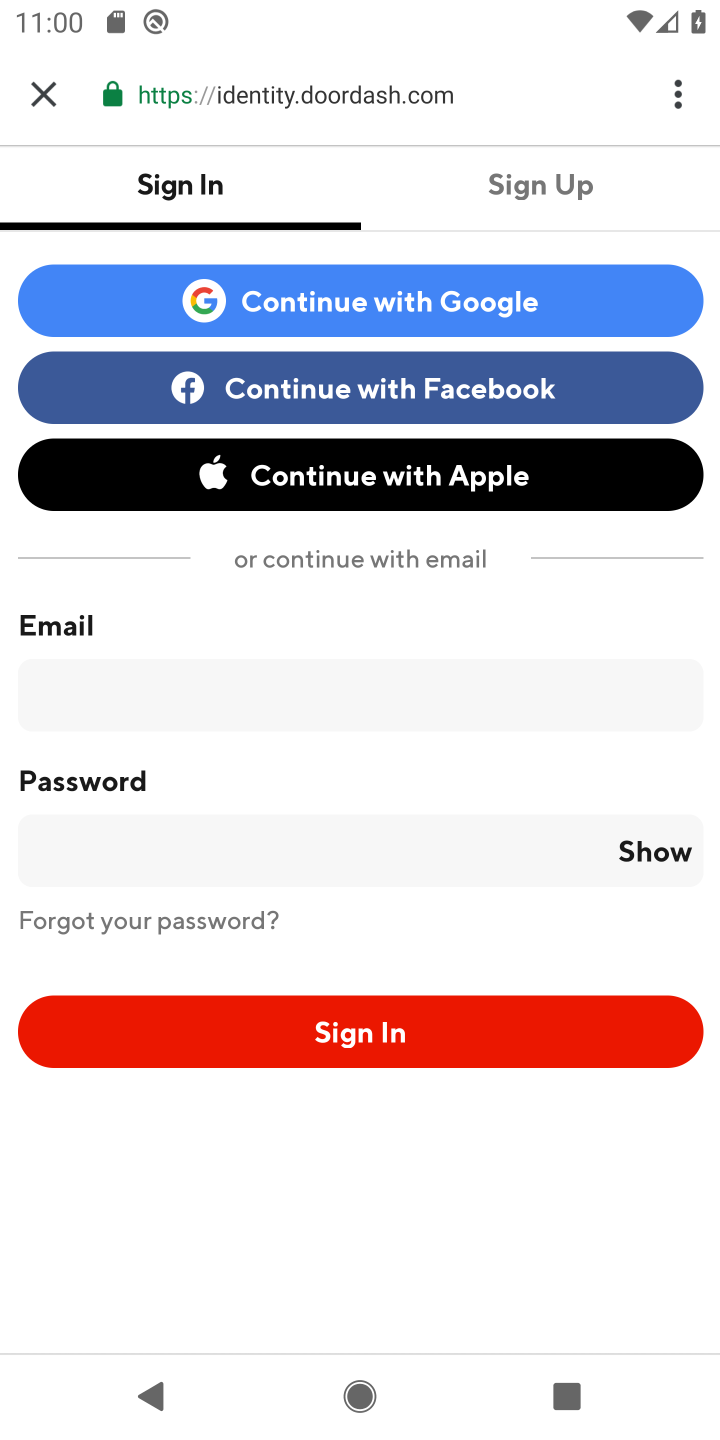
Step 29: click (197, 922)
Your task to perform on an android device: open app "DoorDash - Food Delivery" (install if not already installed), go to login, and select forgot password Image 30: 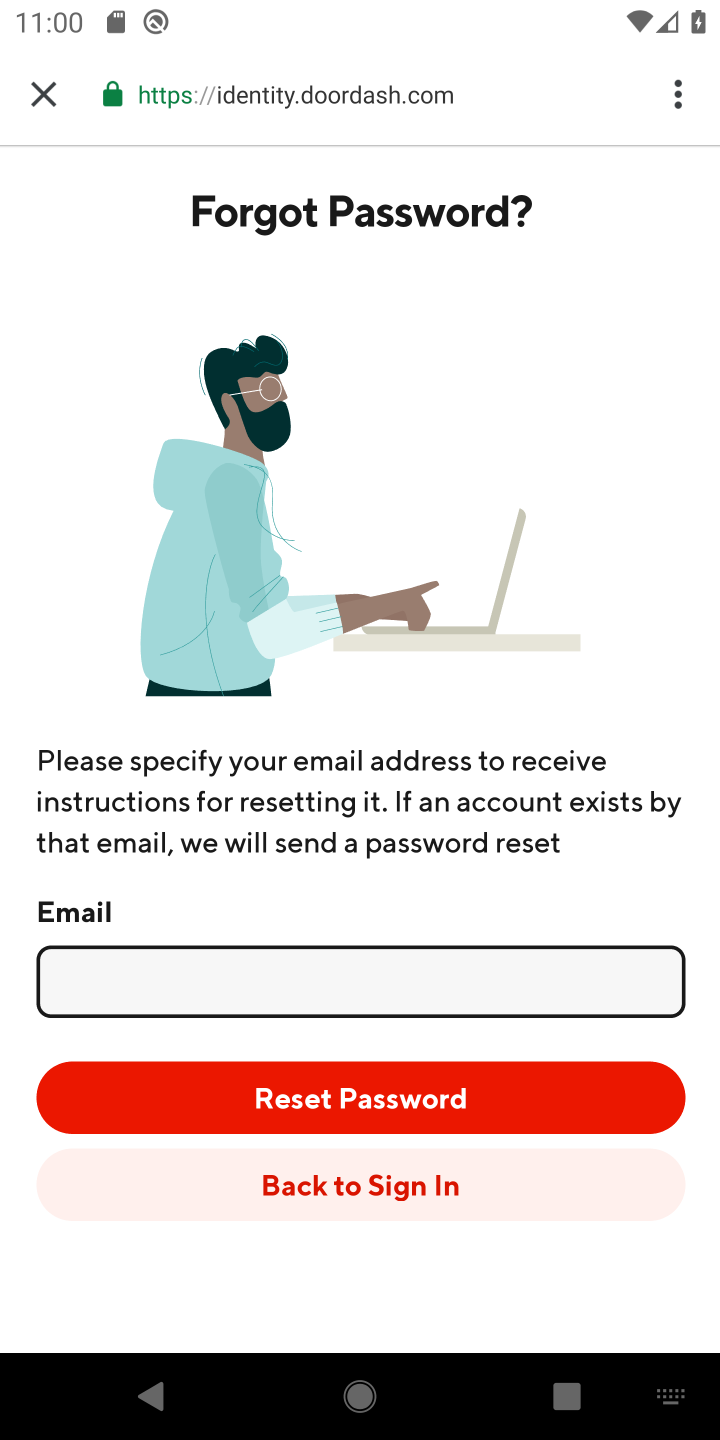
Step 30: task complete